Your task to perform on an android device: add a contact in the contacts app Image 0: 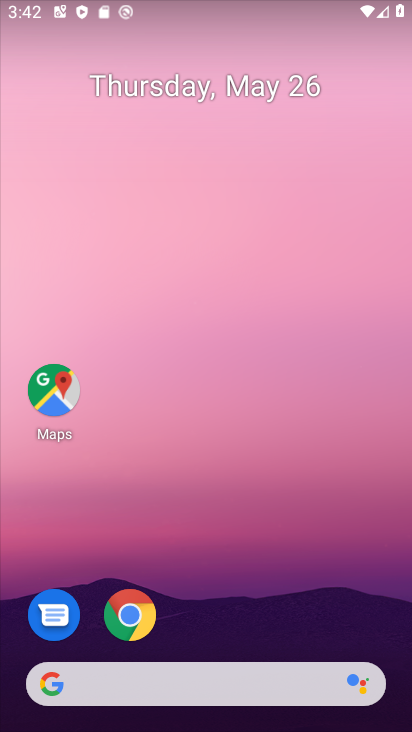
Step 0: drag from (318, 640) to (276, 128)
Your task to perform on an android device: add a contact in the contacts app Image 1: 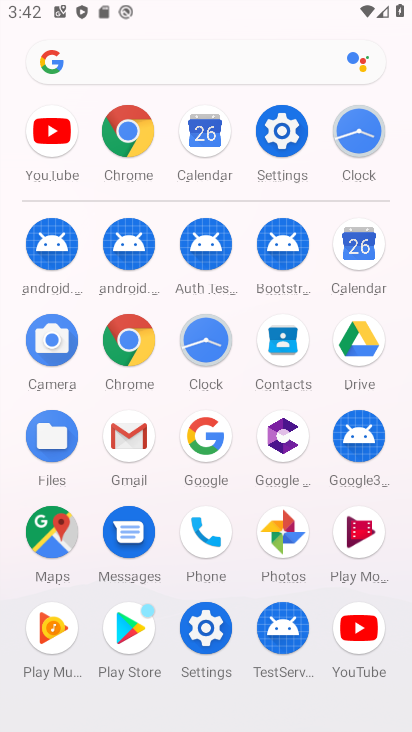
Step 1: click (285, 347)
Your task to perform on an android device: add a contact in the contacts app Image 2: 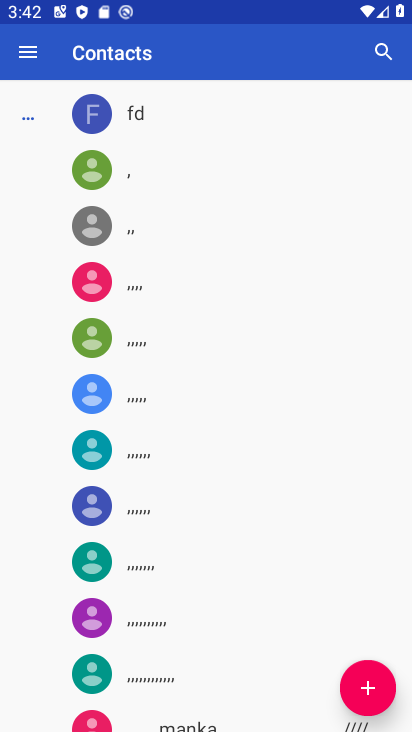
Step 2: click (351, 673)
Your task to perform on an android device: add a contact in the contacts app Image 3: 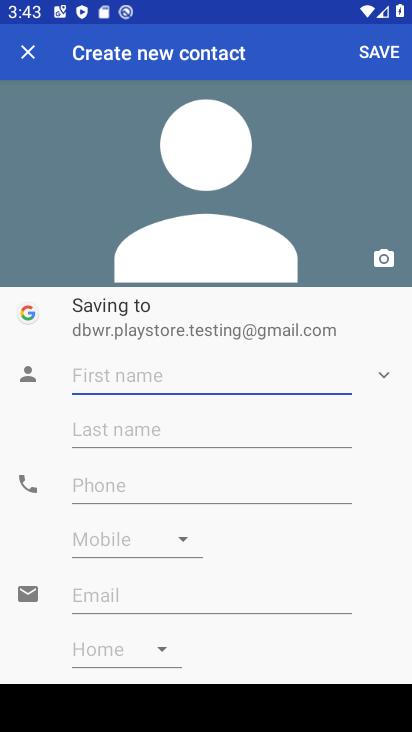
Step 3: type "mkmk"
Your task to perform on an android device: add a contact in the contacts app Image 4: 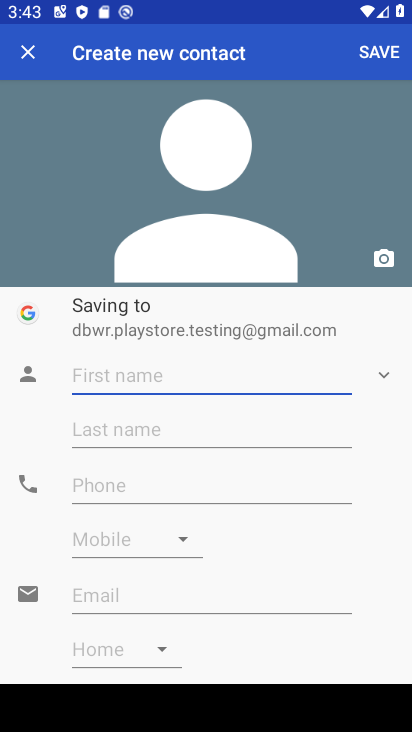
Step 4: click (240, 485)
Your task to perform on an android device: add a contact in the contacts app Image 5: 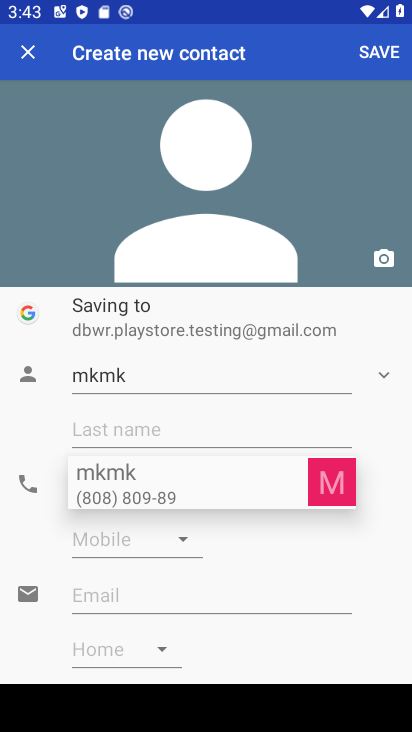
Step 5: type "9999999999"
Your task to perform on an android device: add a contact in the contacts app Image 6: 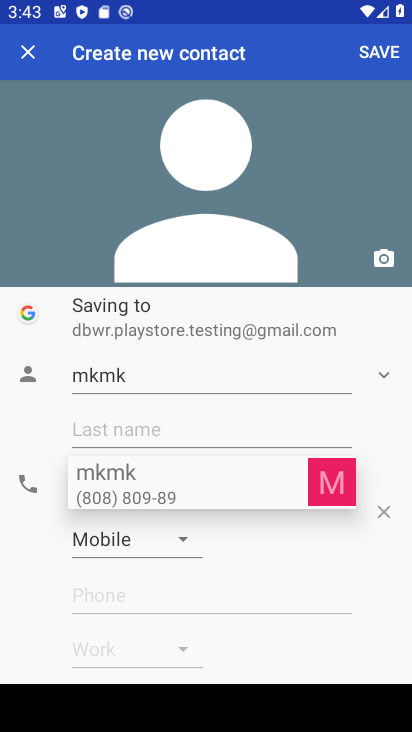
Step 6: type ""
Your task to perform on an android device: add a contact in the contacts app Image 7: 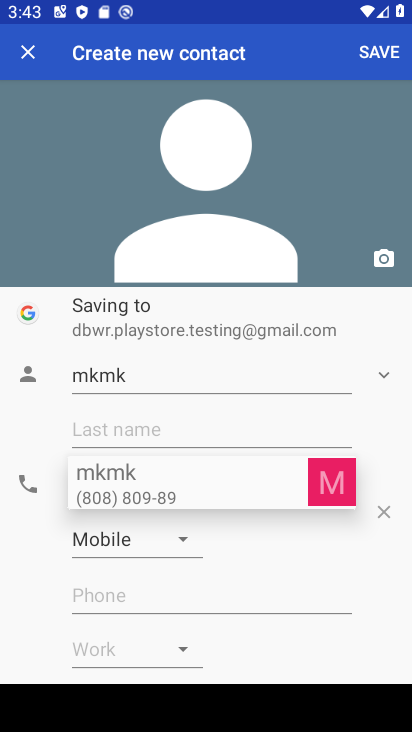
Step 7: click (381, 52)
Your task to perform on an android device: add a contact in the contacts app Image 8: 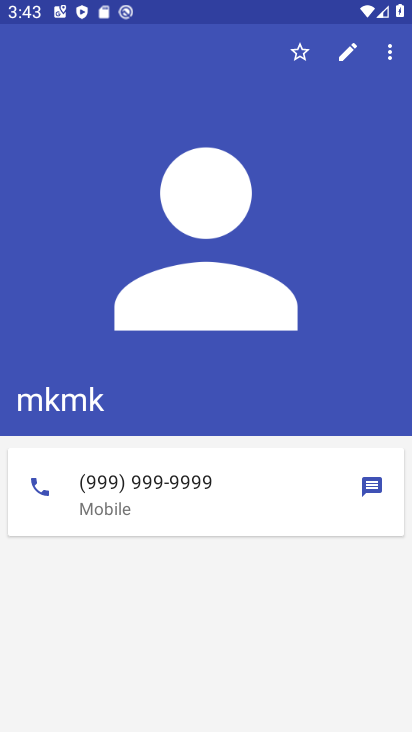
Step 8: task complete